Your task to perform on an android device: Go to ESPN.com Image 0: 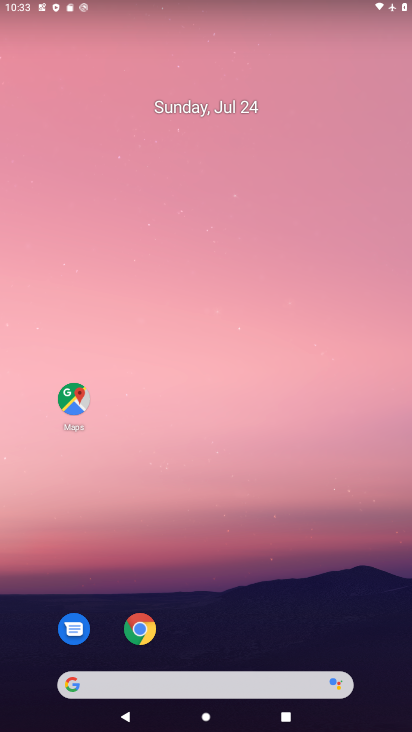
Step 0: click (154, 674)
Your task to perform on an android device: Go to ESPN.com Image 1: 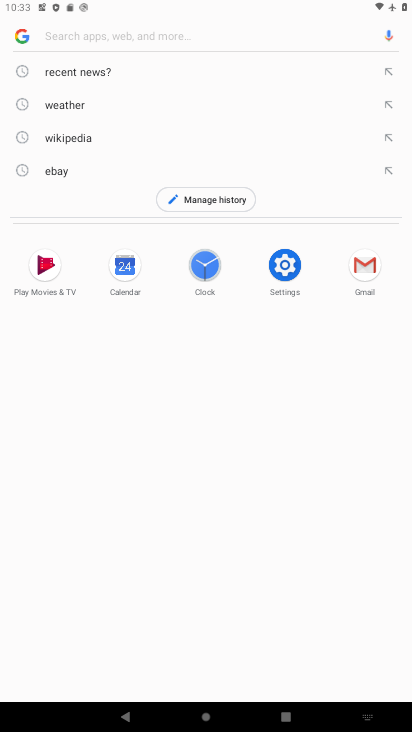
Step 1: type "espn.com"
Your task to perform on an android device: Go to ESPN.com Image 2: 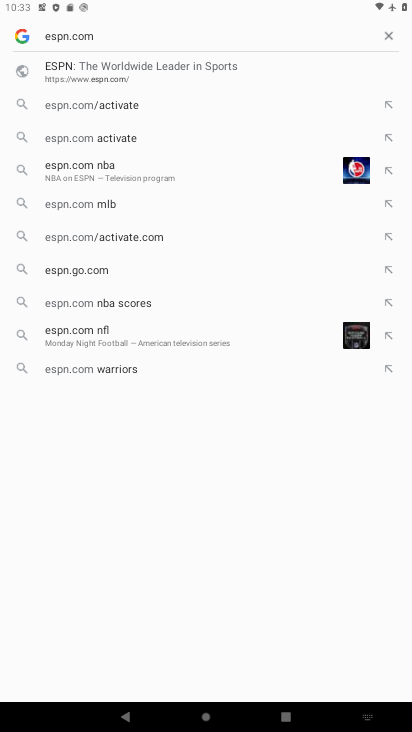
Step 2: click (113, 71)
Your task to perform on an android device: Go to ESPN.com Image 3: 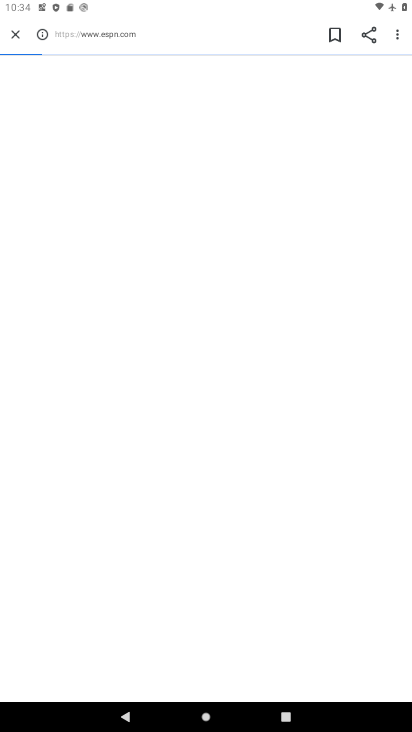
Step 3: task complete